Your task to perform on an android device: check storage Image 0: 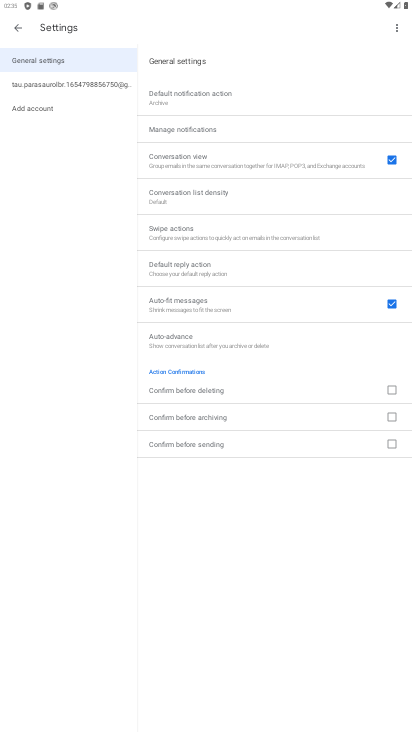
Step 0: press home button
Your task to perform on an android device: check storage Image 1: 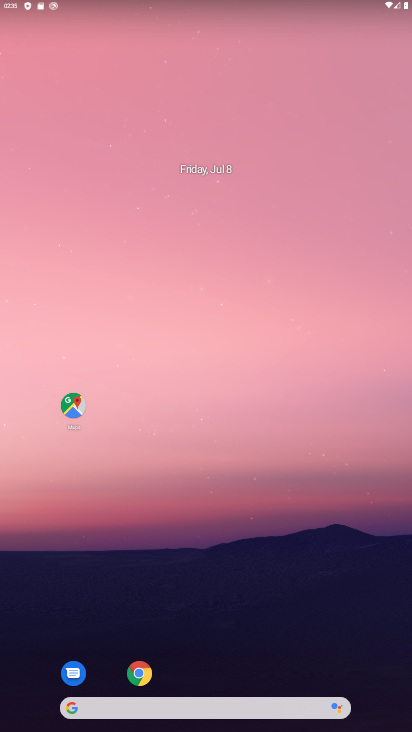
Step 1: drag from (263, 605) to (192, 10)
Your task to perform on an android device: check storage Image 2: 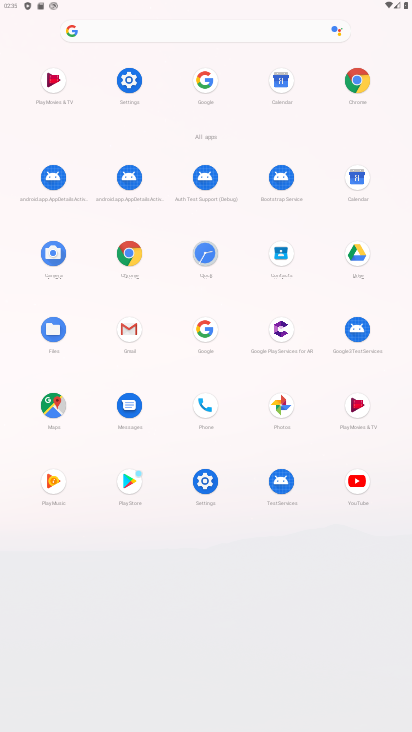
Step 2: click (209, 478)
Your task to perform on an android device: check storage Image 3: 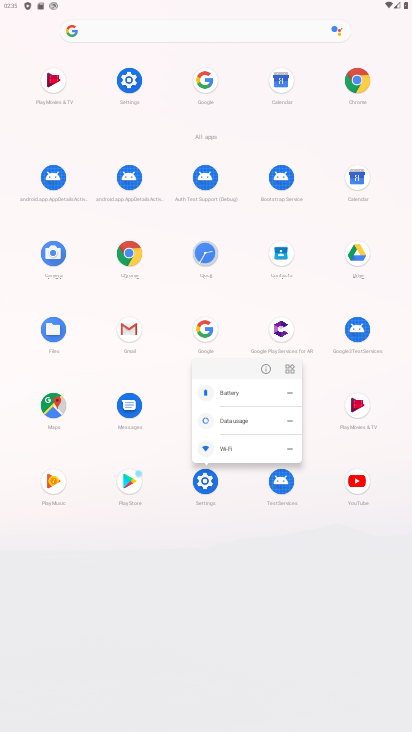
Step 3: click (209, 478)
Your task to perform on an android device: check storage Image 4: 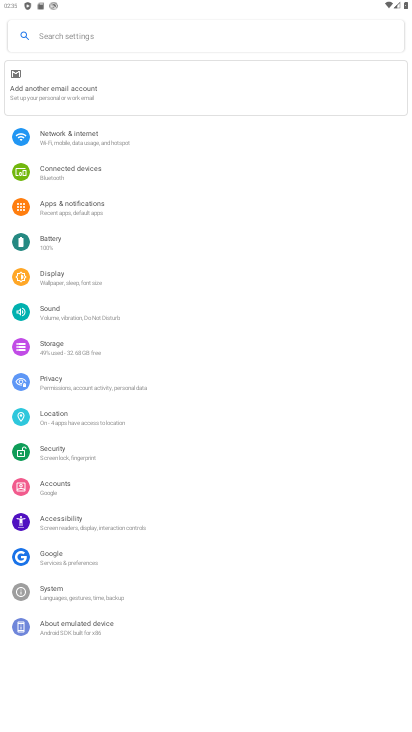
Step 4: click (44, 338)
Your task to perform on an android device: check storage Image 5: 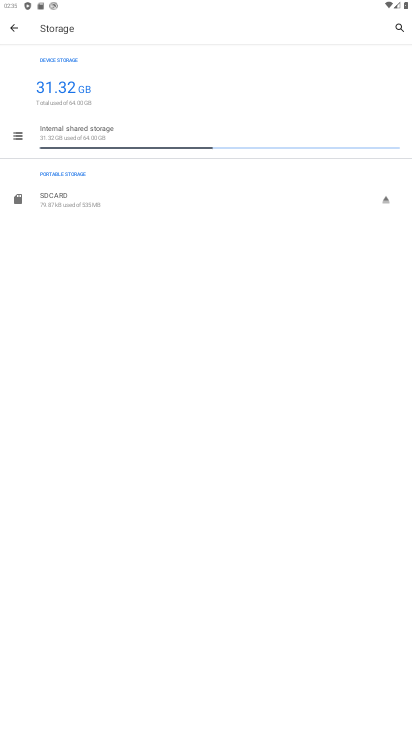
Step 5: task complete